Your task to perform on an android device: open app "Pluto TV - Live TV and Movies" (install if not already installed) Image 0: 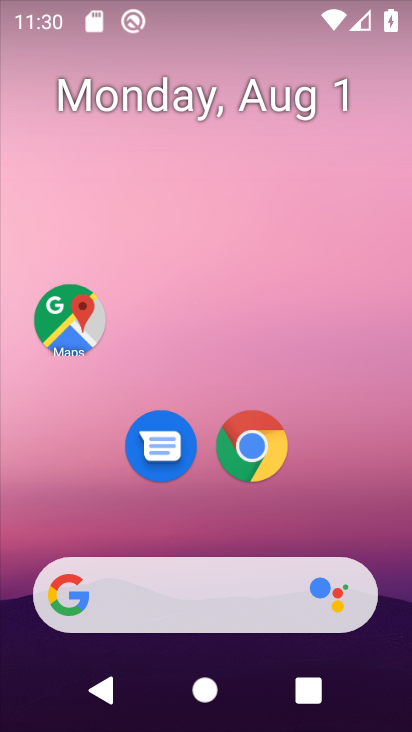
Step 0: drag from (189, 537) to (189, 72)
Your task to perform on an android device: open app "Pluto TV - Live TV and Movies" (install if not already installed) Image 1: 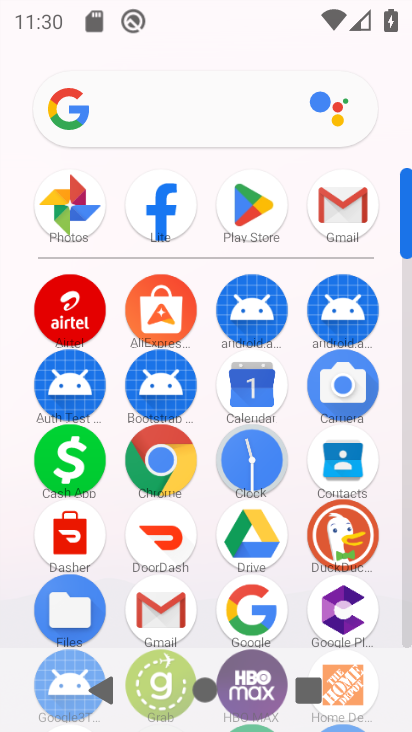
Step 1: click (259, 227)
Your task to perform on an android device: open app "Pluto TV - Live TV and Movies" (install if not already installed) Image 2: 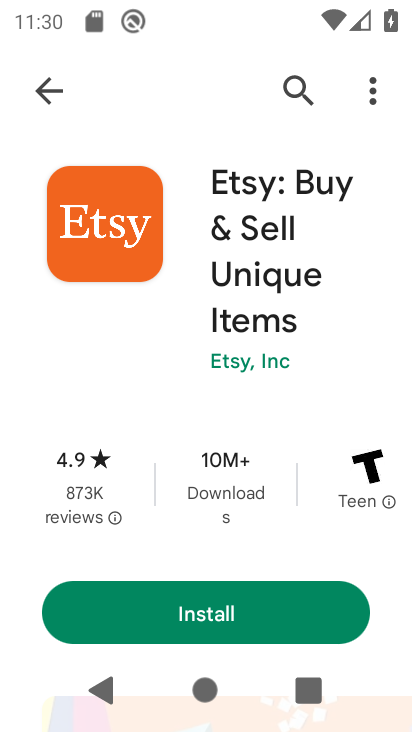
Step 2: click (289, 84)
Your task to perform on an android device: open app "Pluto TV - Live TV and Movies" (install if not already installed) Image 3: 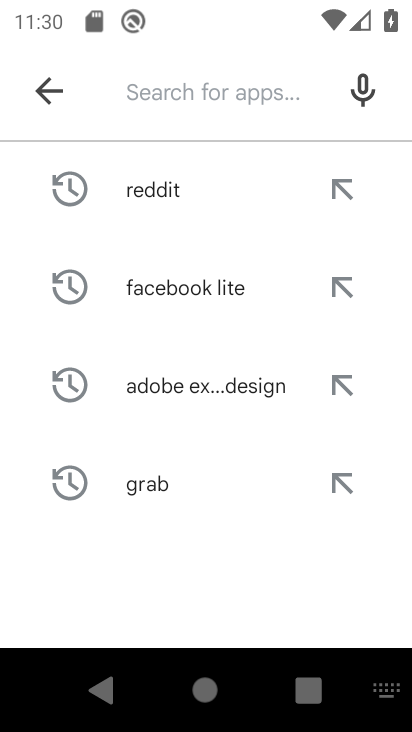
Step 3: type "Pluto TV - Live TV and Movies"
Your task to perform on an android device: open app "Pluto TV - Live TV and Movies" (install if not already installed) Image 4: 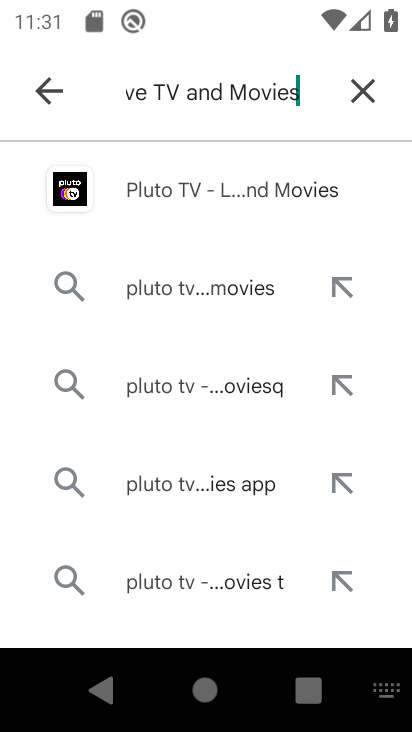
Step 4: type ""
Your task to perform on an android device: open app "Pluto TV - Live TV and Movies" (install if not already installed) Image 5: 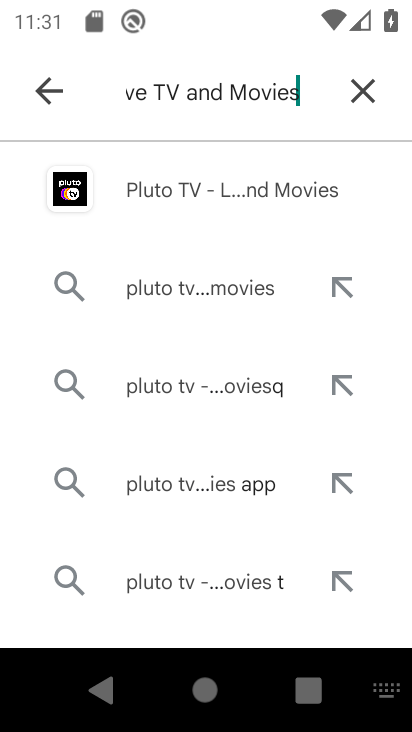
Step 5: click (180, 192)
Your task to perform on an android device: open app "Pluto TV - Live TV and Movies" (install if not already installed) Image 6: 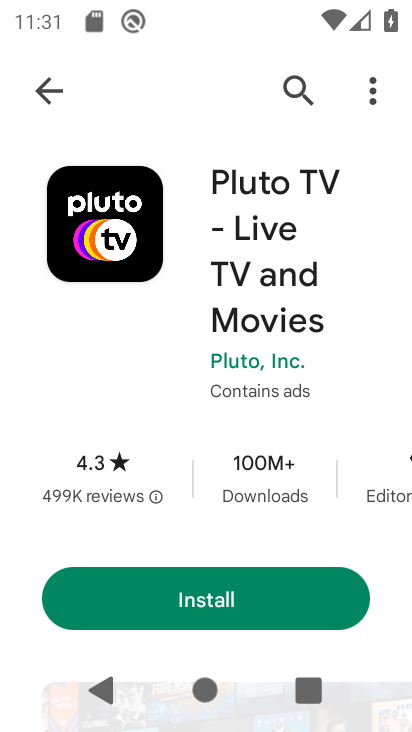
Step 6: click (192, 595)
Your task to perform on an android device: open app "Pluto TV - Live TV and Movies" (install if not already installed) Image 7: 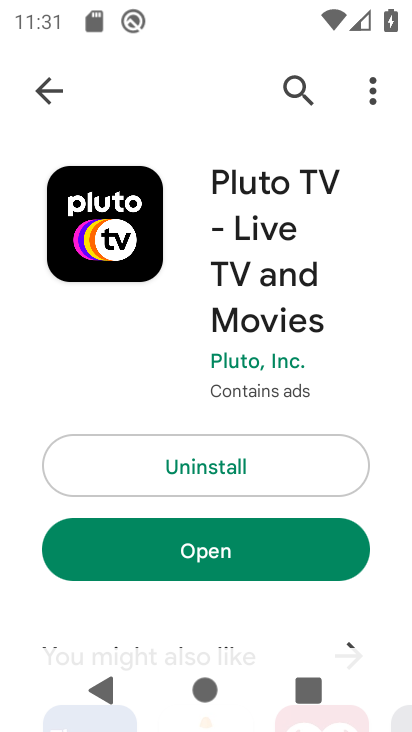
Step 7: click (288, 554)
Your task to perform on an android device: open app "Pluto TV - Live TV and Movies" (install if not already installed) Image 8: 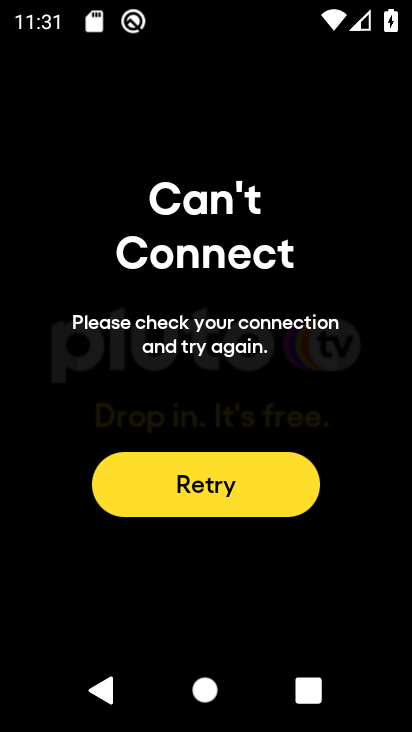
Step 8: task complete